Your task to perform on an android device: Go to Maps Image 0: 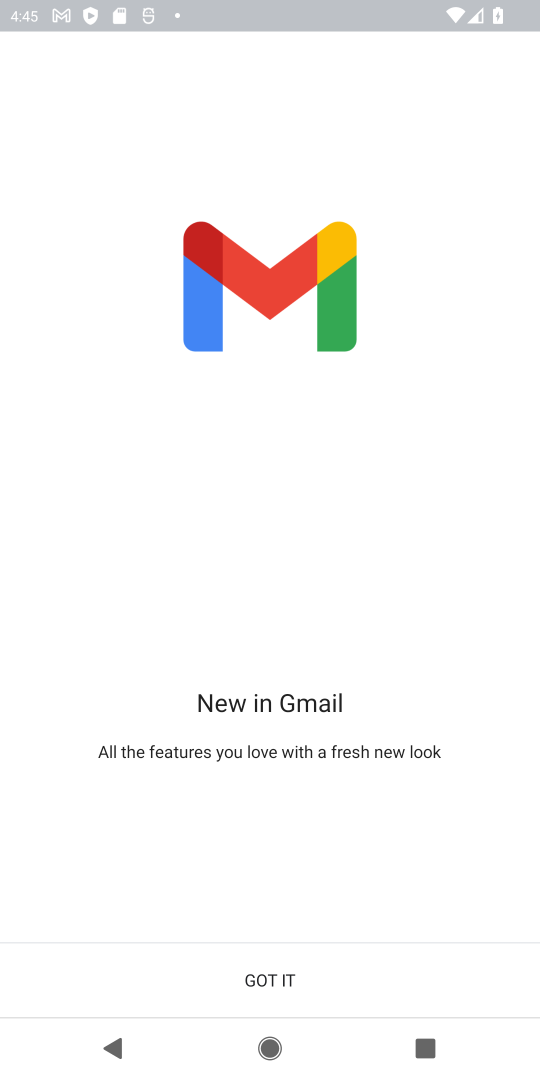
Step 0: press home button
Your task to perform on an android device: Go to Maps Image 1: 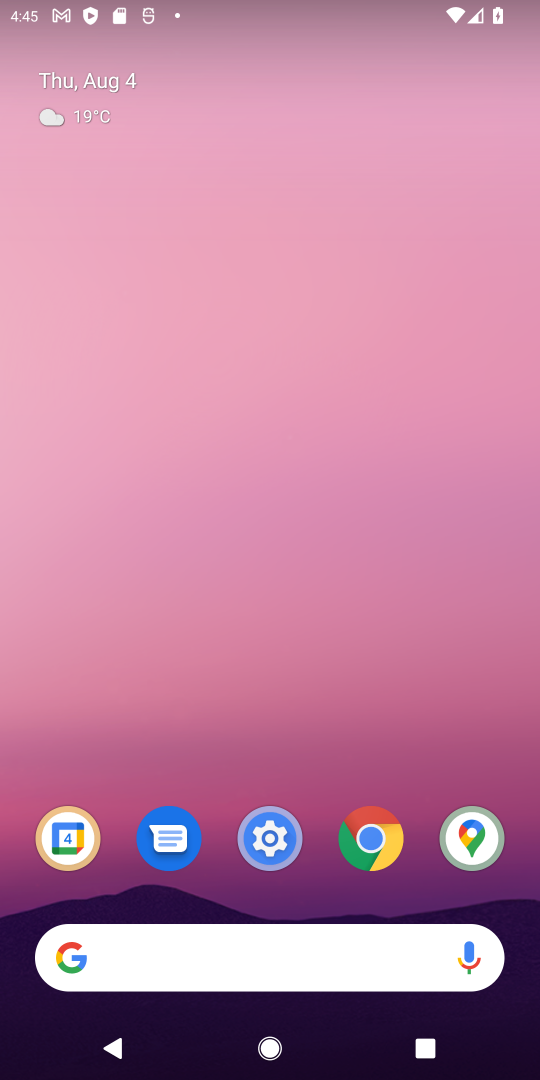
Step 1: drag from (349, 747) to (469, 13)
Your task to perform on an android device: Go to Maps Image 2: 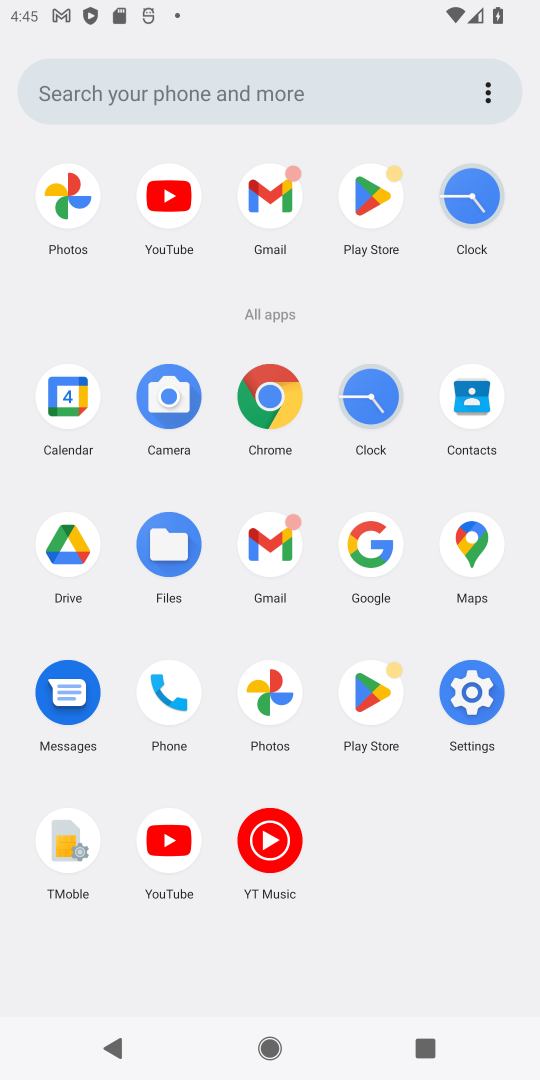
Step 2: click (484, 530)
Your task to perform on an android device: Go to Maps Image 3: 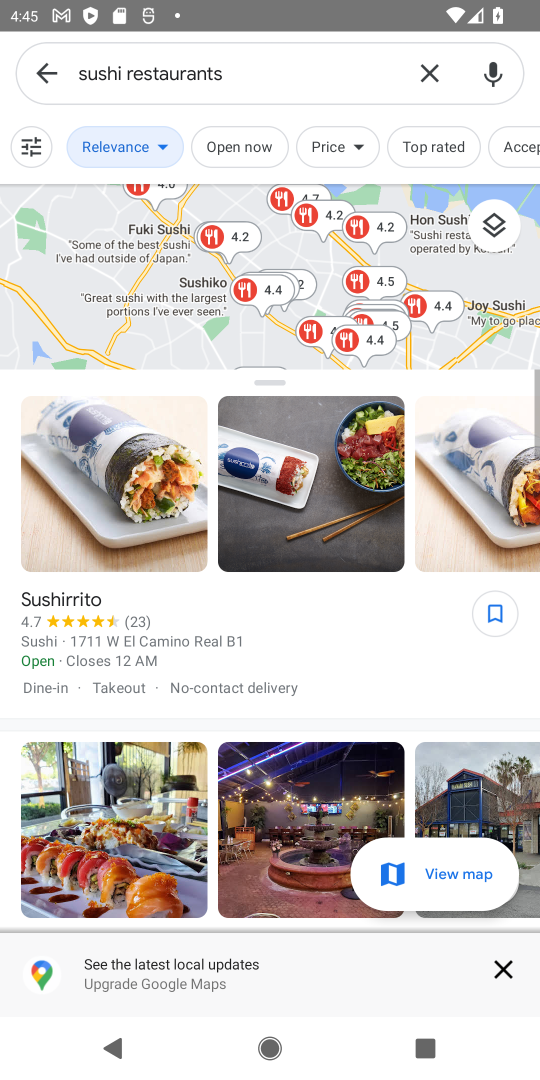
Step 3: task complete